Your task to perform on an android device: change timer sound Image 0: 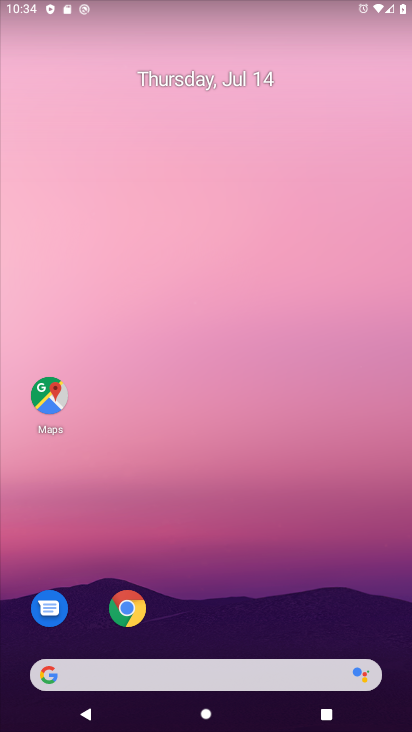
Step 0: drag from (216, 612) to (237, 66)
Your task to perform on an android device: change timer sound Image 1: 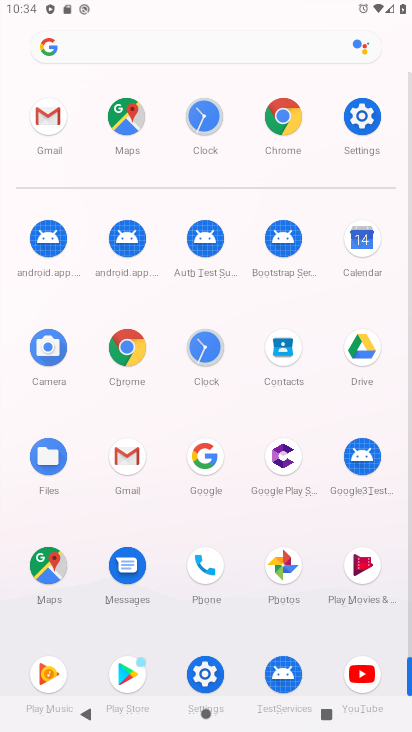
Step 1: click (210, 359)
Your task to perform on an android device: change timer sound Image 2: 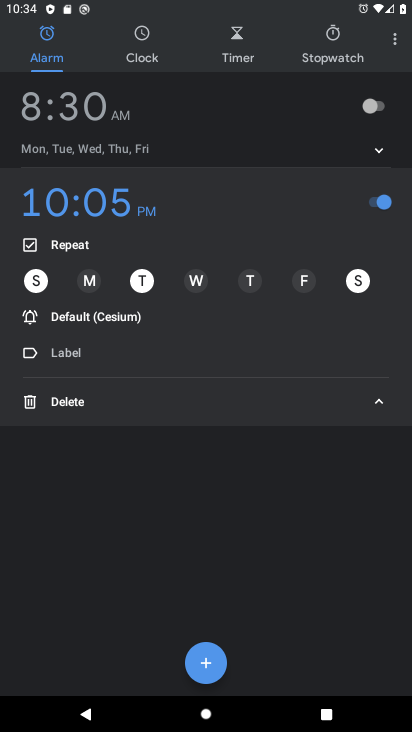
Step 2: click (396, 41)
Your task to perform on an android device: change timer sound Image 3: 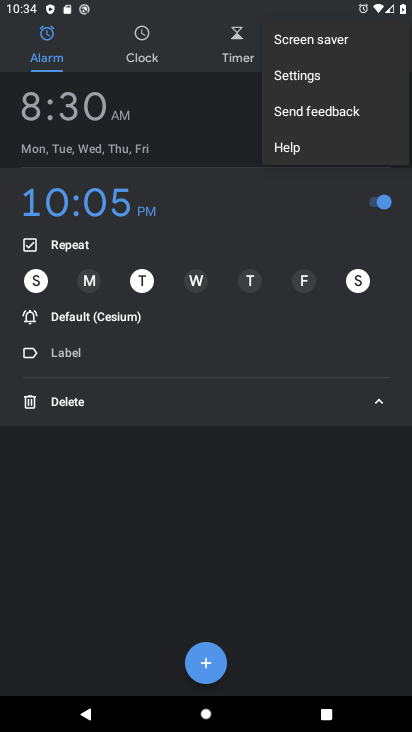
Step 3: click (296, 80)
Your task to perform on an android device: change timer sound Image 4: 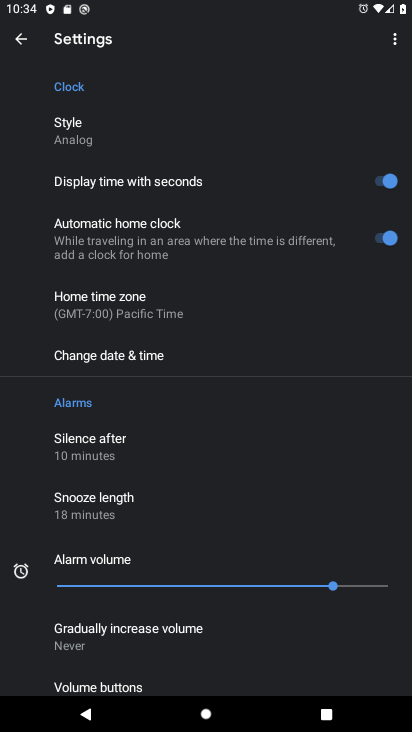
Step 4: drag from (121, 517) to (183, 205)
Your task to perform on an android device: change timer sound Image 5: 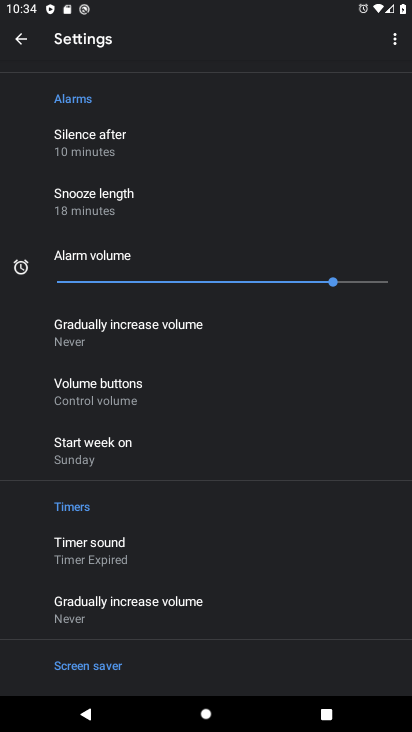
Step 5: click (114, 550)
Your task to perform on an android device: change timer sound Image 6: 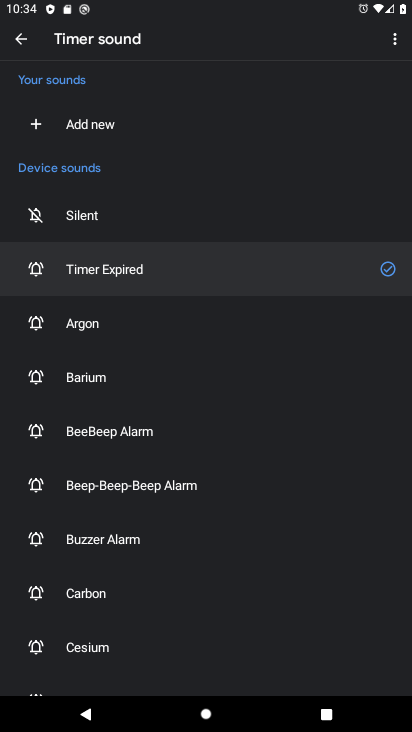
Step 6: click (88, 336)
Your task to perform on an android device: change timer sound Image 7: 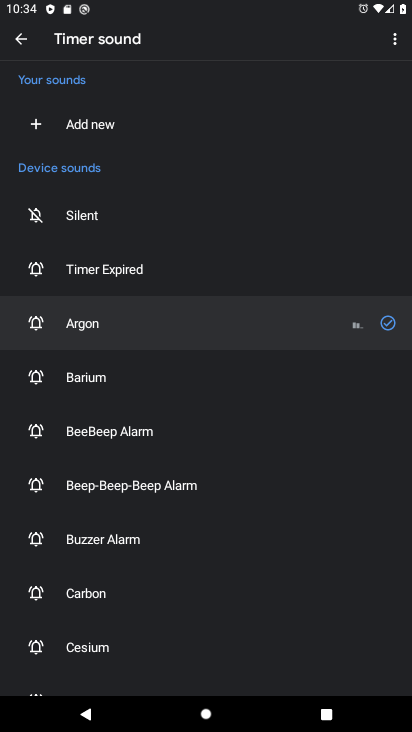
Step 7: click (94, 380)
Your task to perform on an android device: change timer sound Image 8: 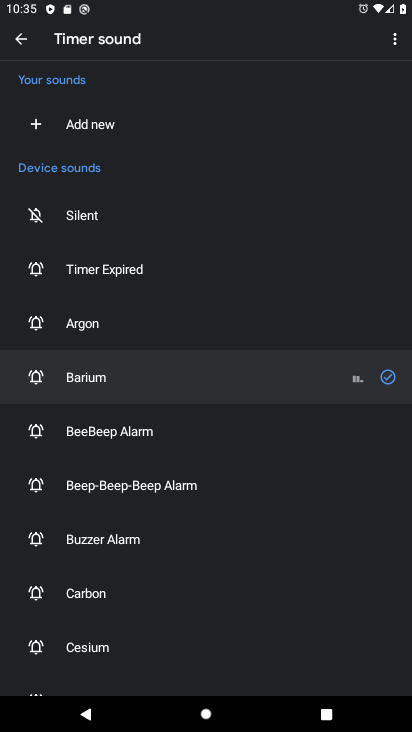
Step 8: task complete